Your task to perform on an android device: turn on improve location accuracy Image 0: 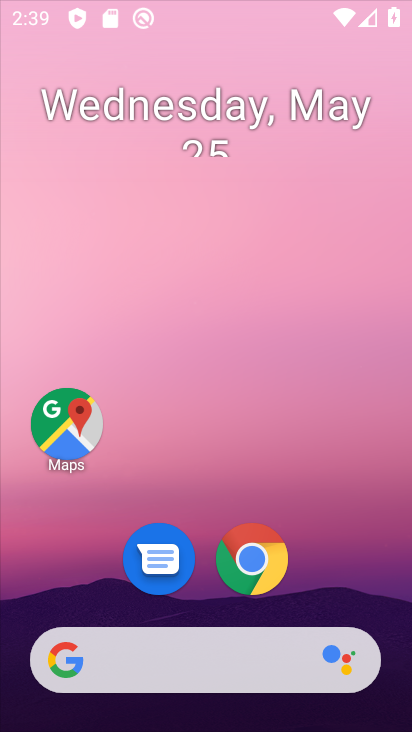
Step 0: press home button
Your task to perform on an android device: turn on improve location accuracy Image 1: 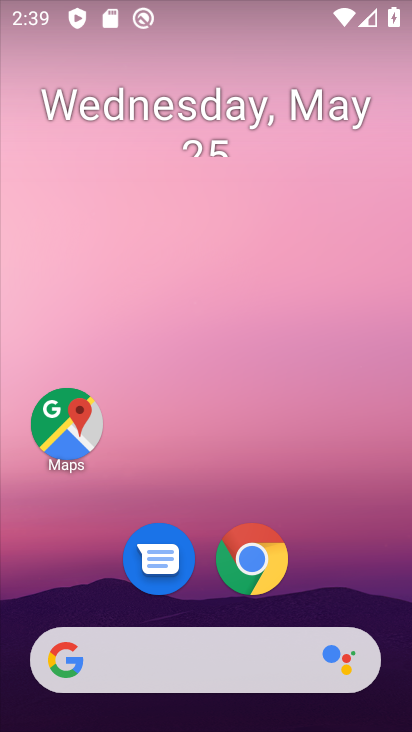
Step 1: drag from (205, 595) to (221, 64)
Your task to perform on an android device: turn on improve location accuracy Image 2: 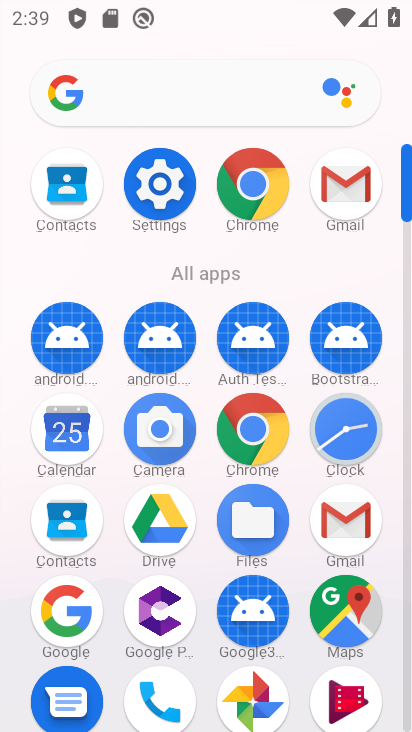
Step 2: click (156, 176)
Your task to perform on an android device: turn on improve location accuracy Image 3: 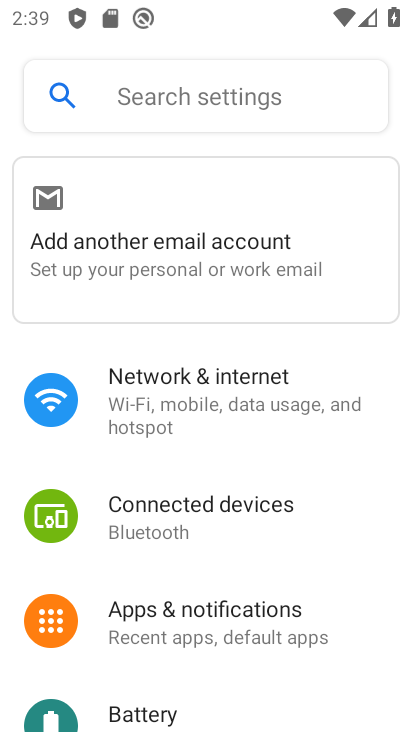
Step 3: drag from (232, 683) to (216, 156)
Your task to perform on an android device: turn on improve location accuracy Image 4: 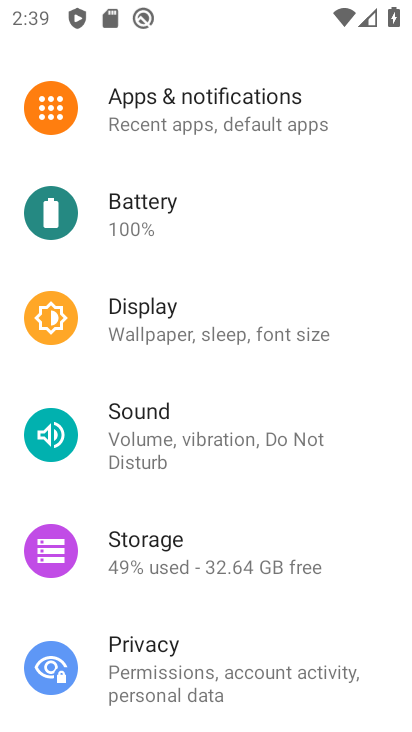
Step 4: drag from (230, 657) to (192, 243)
Your task to perform on an android device: turn on improve location accuracy Image 5: 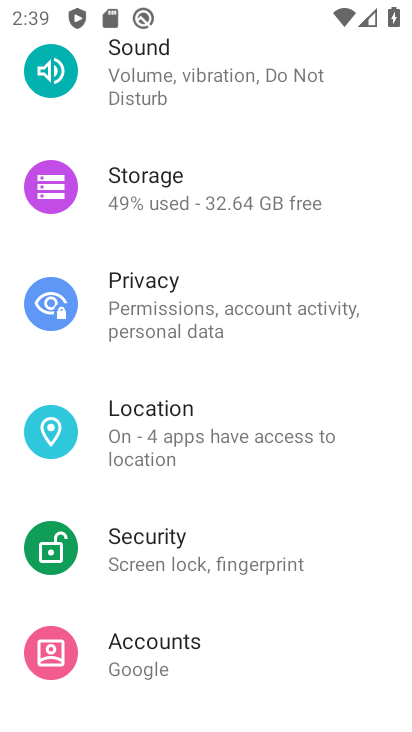
Step 5: click (194, 408)
Your task to perform on an android device: turn on improve location accuracy Image 6: 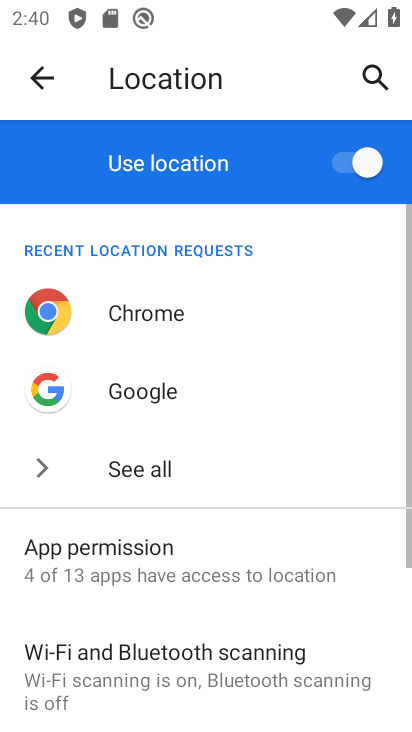
Step 6: drag from (202, 688) to (222, 305)
Your task to perform on an android device: turn on improve location accuracy Image 7: 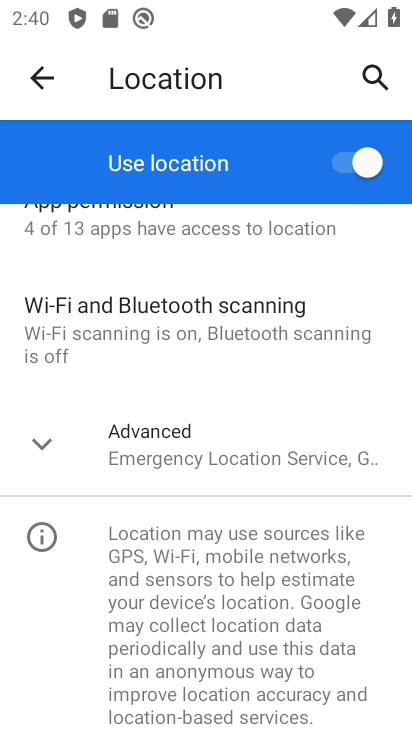
Step 7: click (39, 436)
Your task to perform on an android device: turn on improve location accuracy Image 8: 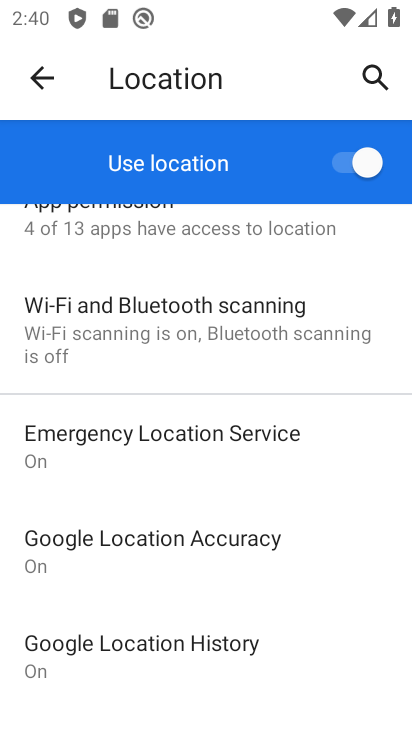
Step 8: click (80, 554)
Your task to perform on an android device: turn on improve location accuracy Image 9: 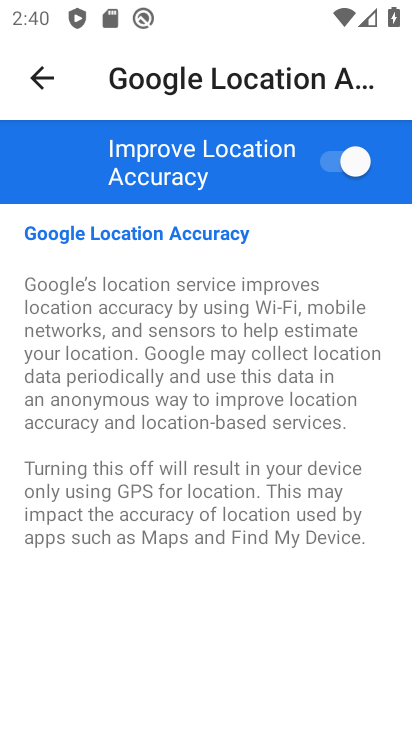
Step 9: task complete